Your task to perform on an android device: Open Wikipedia Image 0: 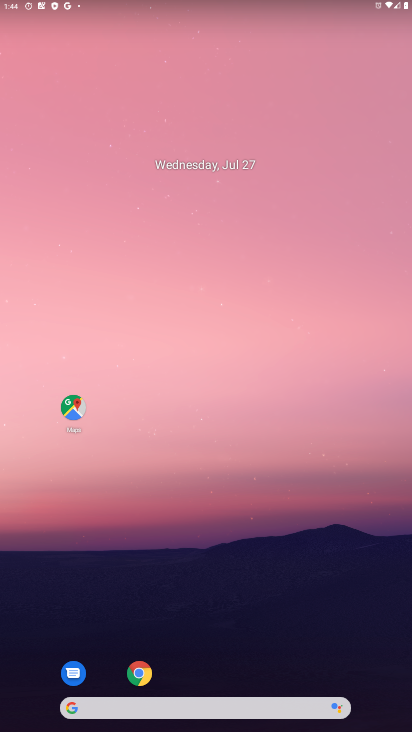
Step 0: click (142, 676)
Your task to perform on an android device: Open Wikipedia Image 1: 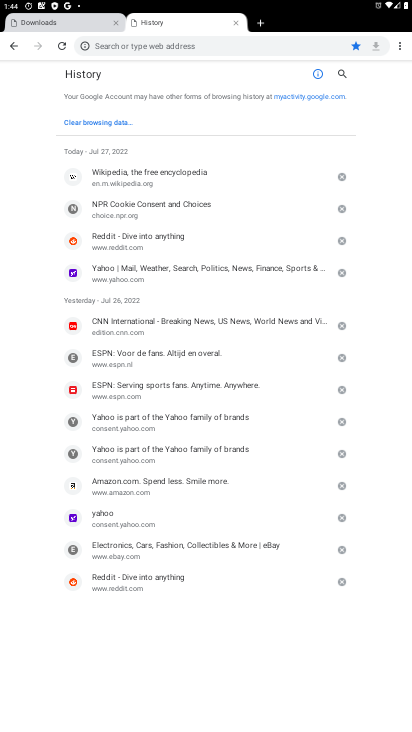
Step 1: click (206, 43)
Your task to perform on an android device: Open Wikipedia Image 2: 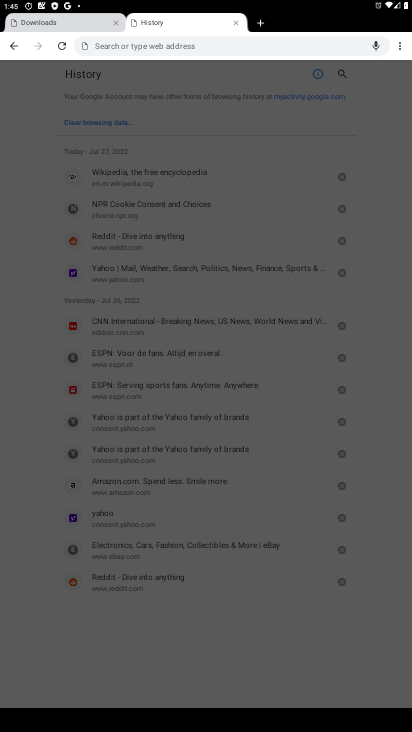
Step 2: type " Wikipedia"
Your task to perform on an android device: Open Wikipedia Image 3: 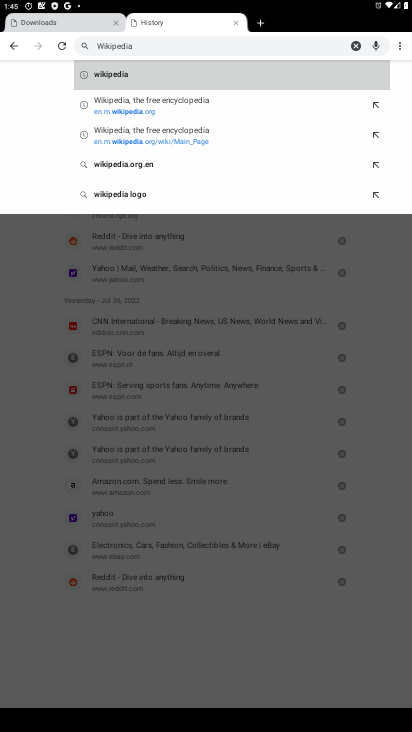
Step 3: click (114, 113)
Your task to perform on an android device: Open Wikipedia Image 4: 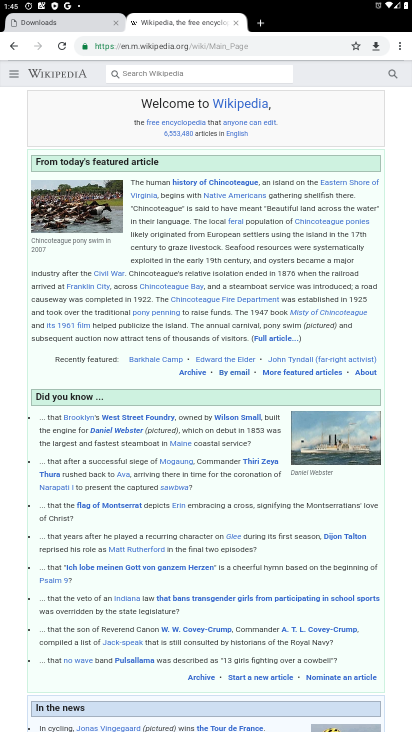
Step 4: task complete